Your task to perform on an android device: Do I have any events tomorrow? Image 0: 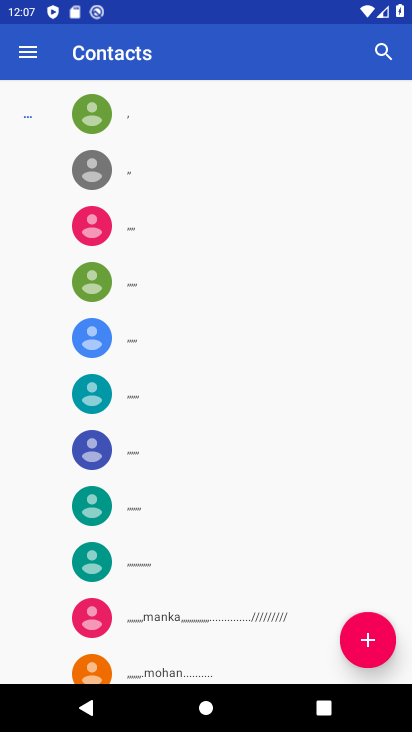
Step 0: press home button
Your task to perform on an android device: Do I have any events tomorrow? Image 1: 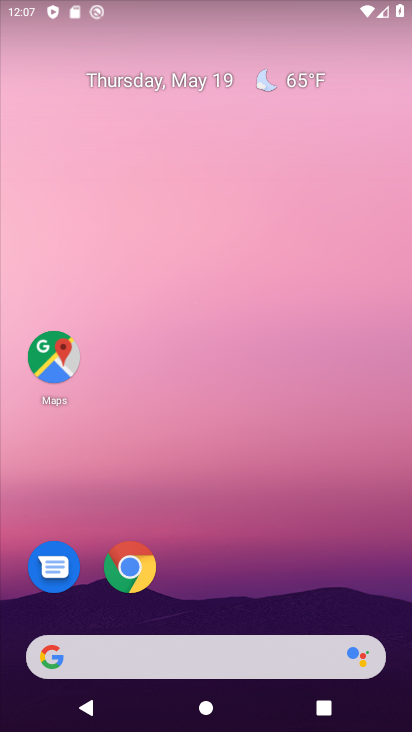
Step 1: click (171, 76)
Your task to perform on an android device: Do I have any events tomorrow? Image 2: 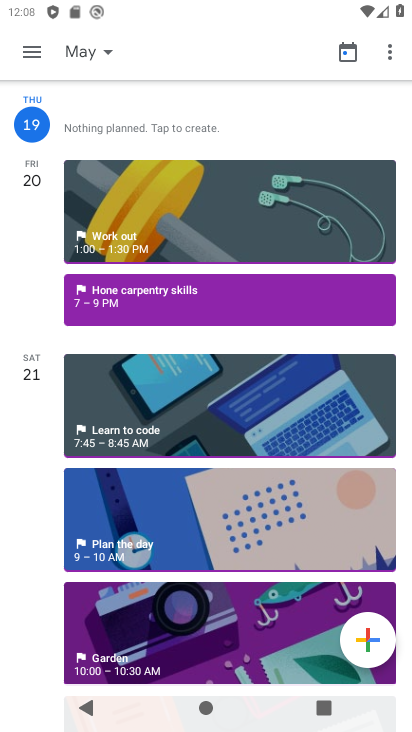
Step 2: task complete